Your task to perform on an android device: check battery use Image 0: 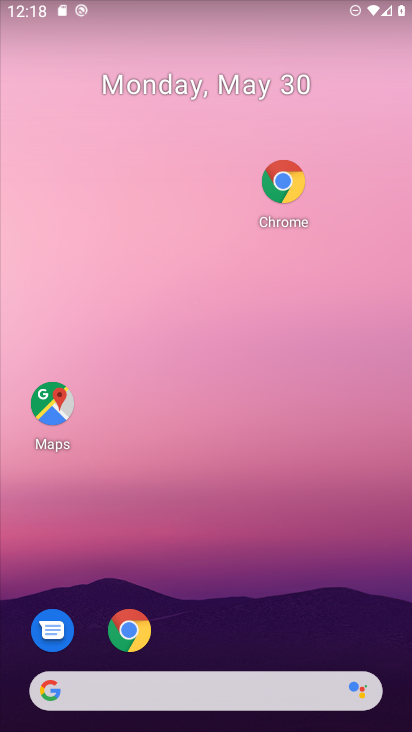
Step 0: drag from (129, 159) to (132, 7)
Your task to perform on an android device: check battery use Image 1: 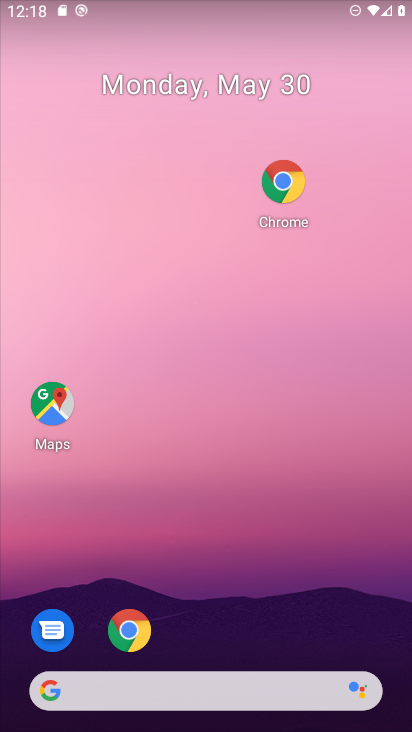
Step 1: drag from (266, 707) to (142, 122)
Your task to perform on an android device: check battery use Image 2: 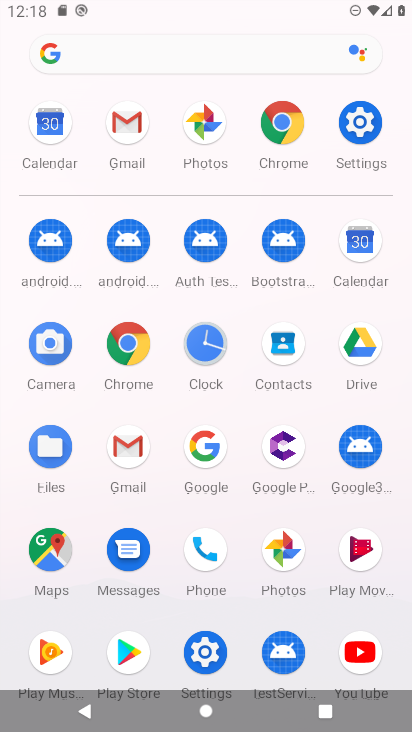
Step 2: click (365, 120)
Your task to perform on an android device: check battery use Image 3: 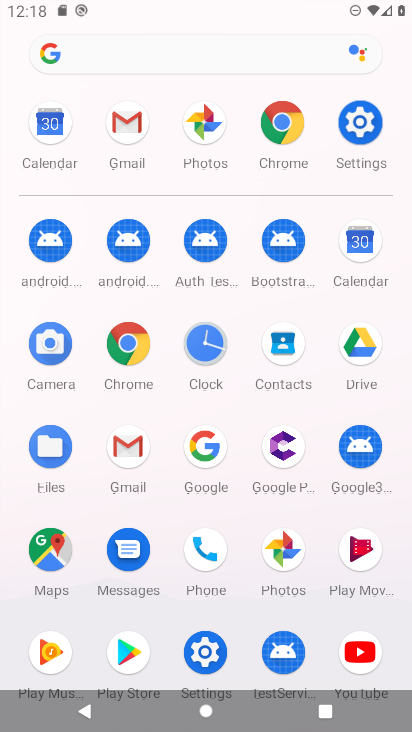
Step 3: click (365, 120)
Your task to perform on an android device: check battery use Image 4: 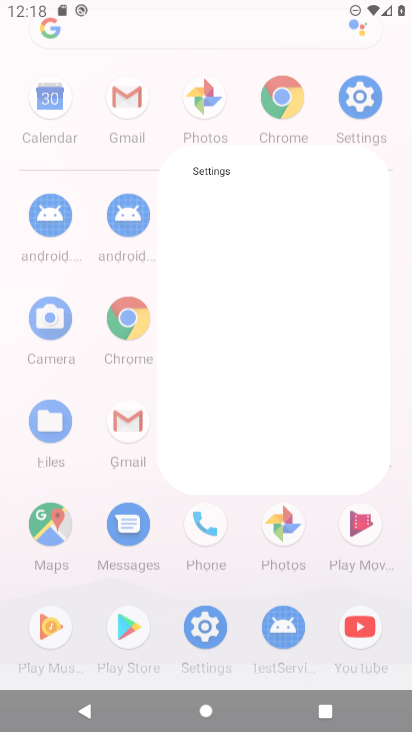
Step 4: click (361, 116)
Your task to perform on an android device: check battery use Image 5: 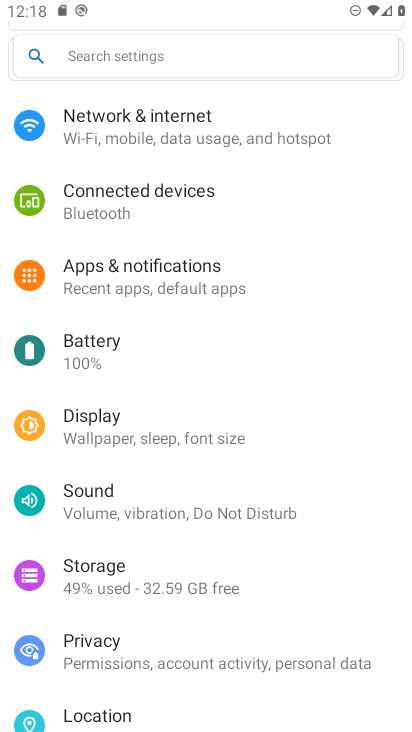
Step 5: click (78, 362)
Your task to perform on an android device: check battery use Image 6: 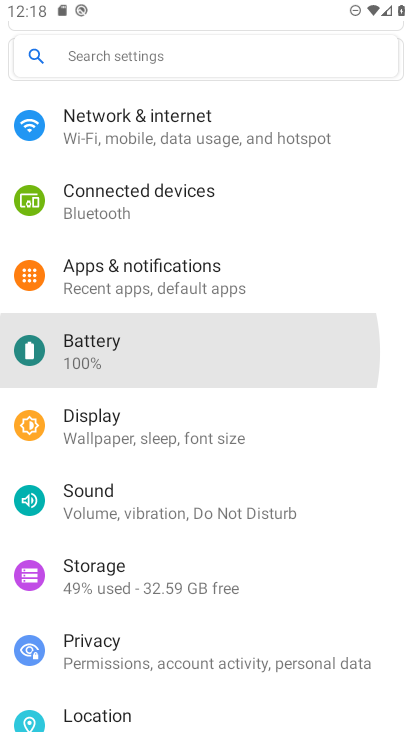
Step 6: click (80, 339)
Your task to perform on an android device: check battery use Image 7: 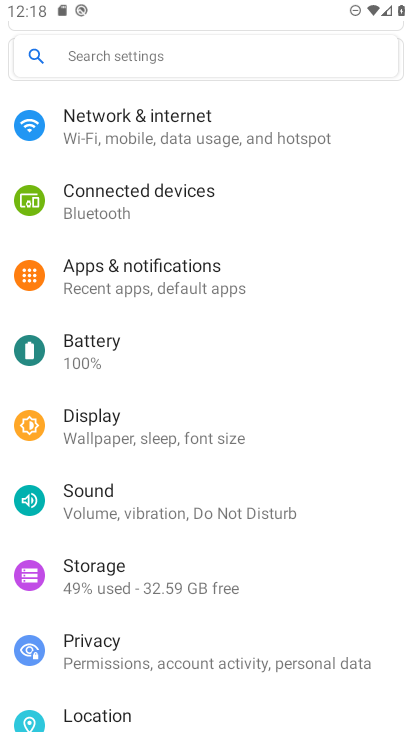
Step 7: click (84, 331)
Your task to perform on an android device: check battery use Image 8: 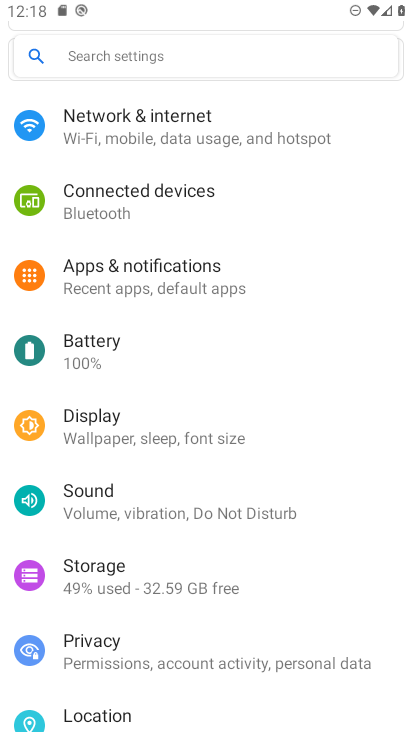
Step 8: click (84, 331)
Your task to perform on an android device: check battery use Image 9: 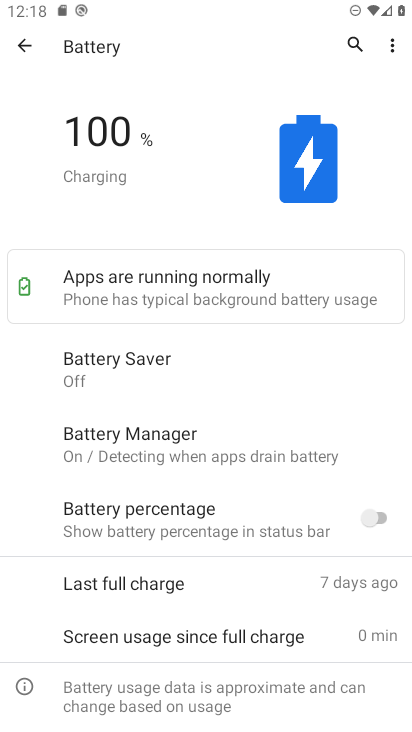
Step 9: task complete